Your task to perform on an android device: choose inbox layout in the gmail app Image 0: 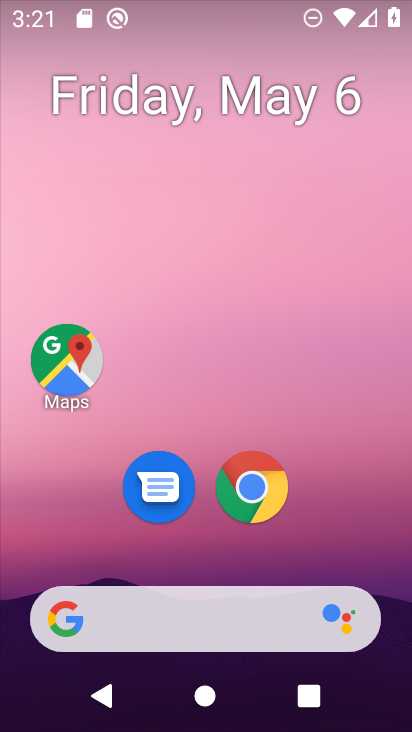
Step 0: drag from (350, 554) to (371, 58)
Your task to perform on an android device: choose inbox layout in the gmail app Image 1: 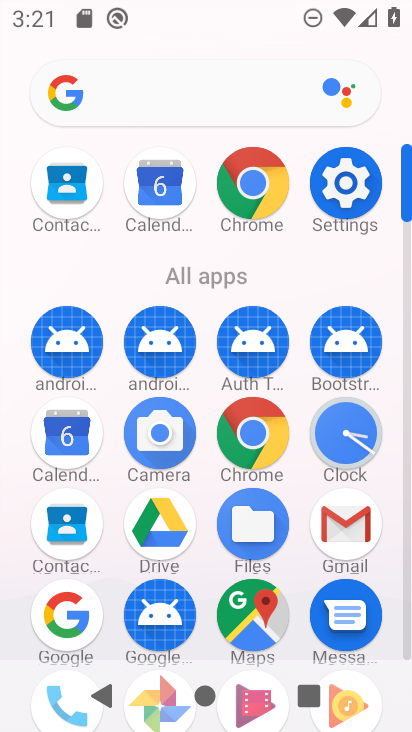
Step 1: click (332, 548)
Your task to perform on an android device: choose inbox layout in the gmail app Image 2: 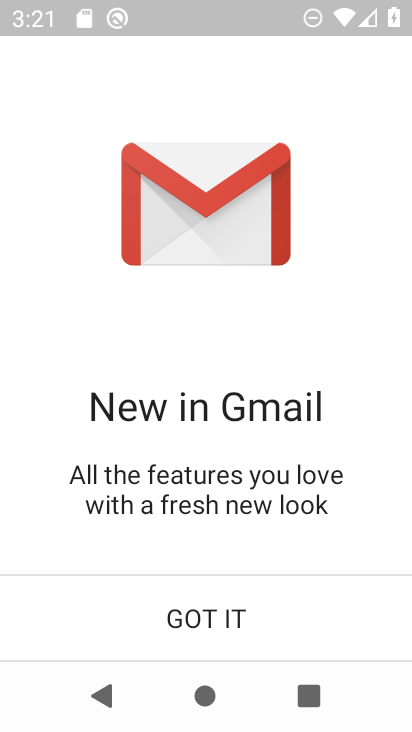
Step 2: click (177, 596)
Your task to perform on an android device: choose inbox layout in the gmail app Image 3: 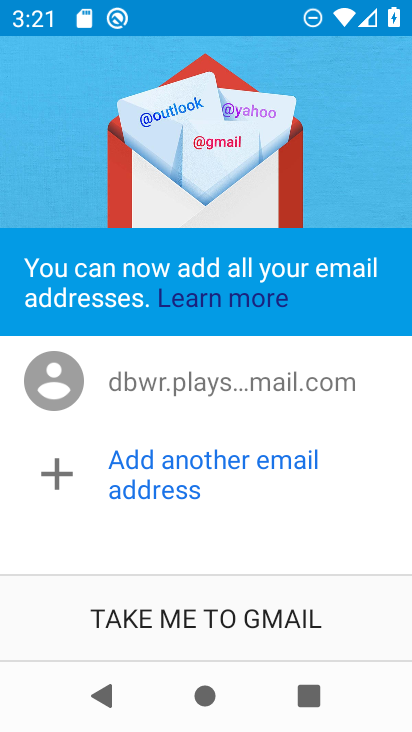
Step 3: click (226, 627)
Your task to perform on an android device: choose inbox layout in the gmail app Image 4: 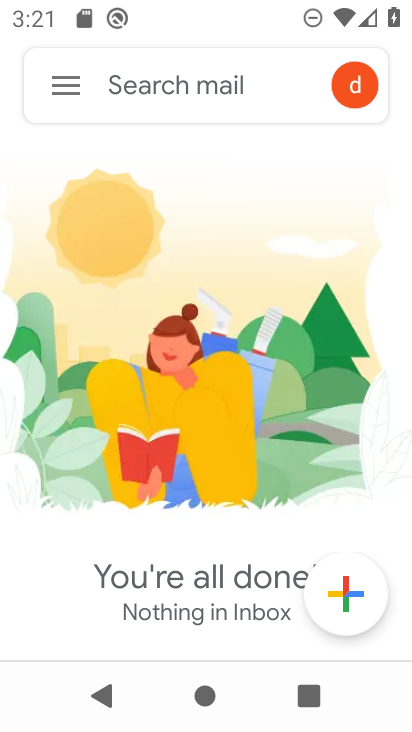
Step 4: click (66, 83)
Your task to perform on an android device: choose inbox layout in the gmail app Image 5: 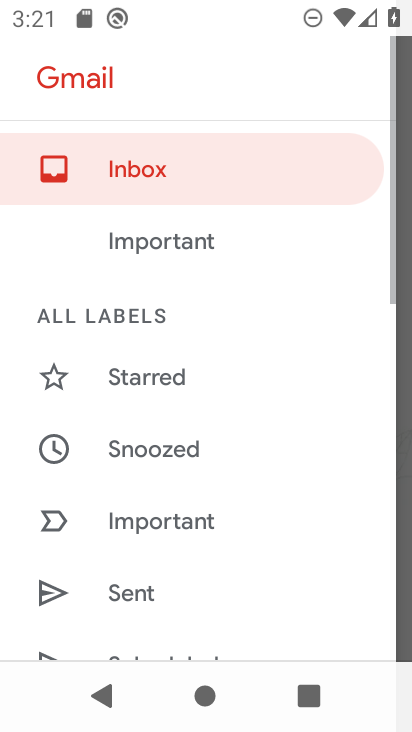
Step 5: drag from (212, 590) to (217, 460)
Your task to perform on an android device: choose inbox layout in the gmail app Image 6: 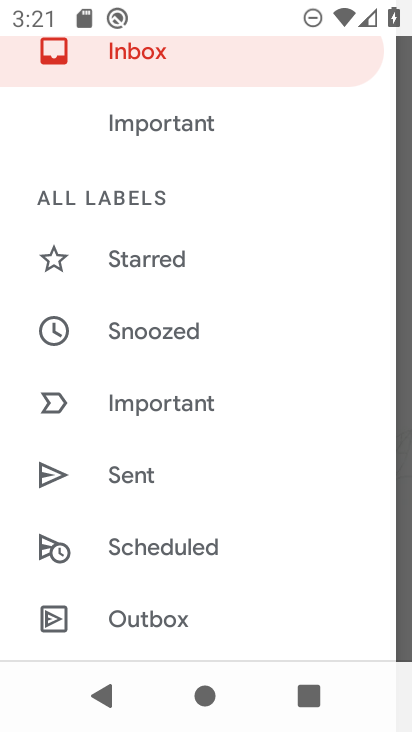
Step 6: drag from (201, 581) to (213, 399)
Your task to perform on an android device: choose inbox layout in the gmail app Image 7: 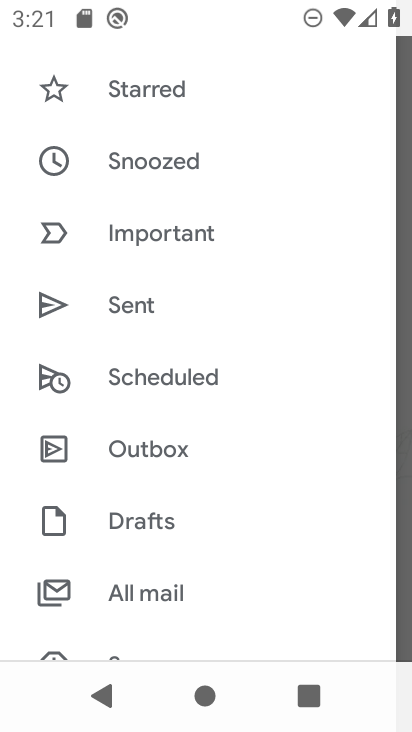
Step 7: drag from (214, 554) to (224, 397)
Your task to perform on an android device: choose inbox layout in the gmail app Image 8: 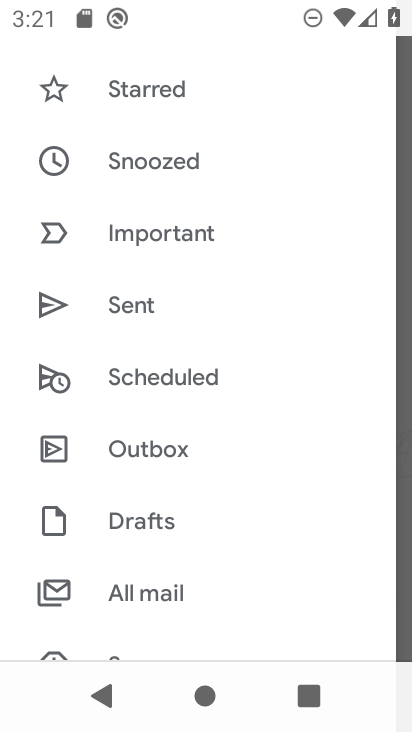
Step 8: drag from (206, 573) to (271, 421)
Your task to perform on an android device: choose inbox layout in the gmail app Image 9: 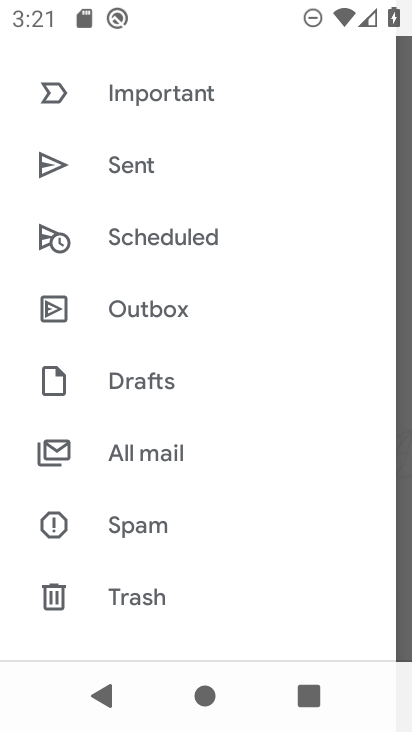
Step 9: drag from (190, 605) to (243, 354)
Your task to perform on an android device: choose inbox layout in the gmail app Image 10: 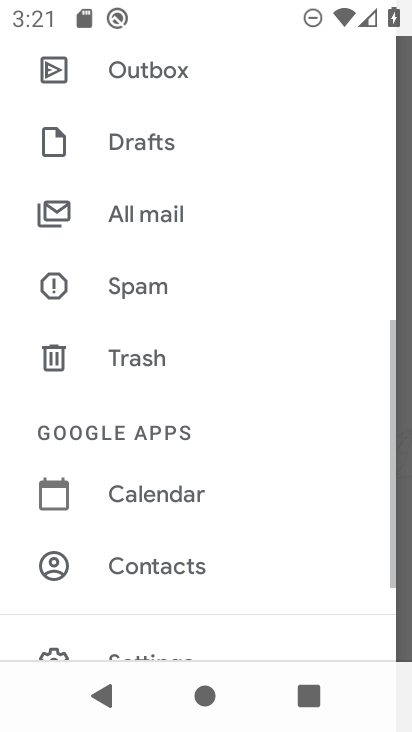
Step 10: drag from (238, 579) to (270, 352)
Your task to perform on an android device: choose inbox layout in the gmail app Image 11: 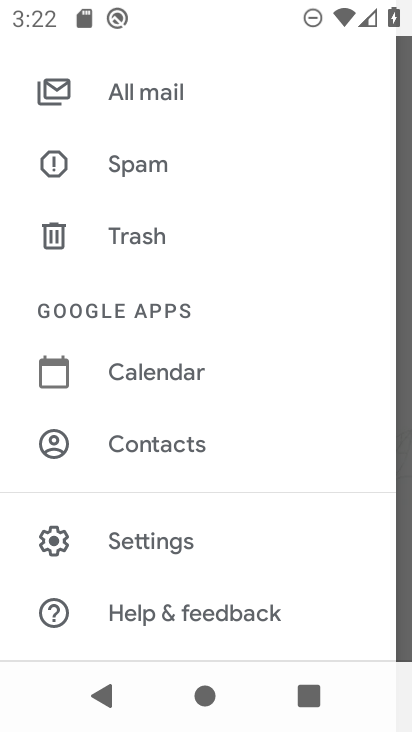
Step 11: click (209, 542)
Your task to perform on an android device: choose inbox layout in the gmail app Image 12: 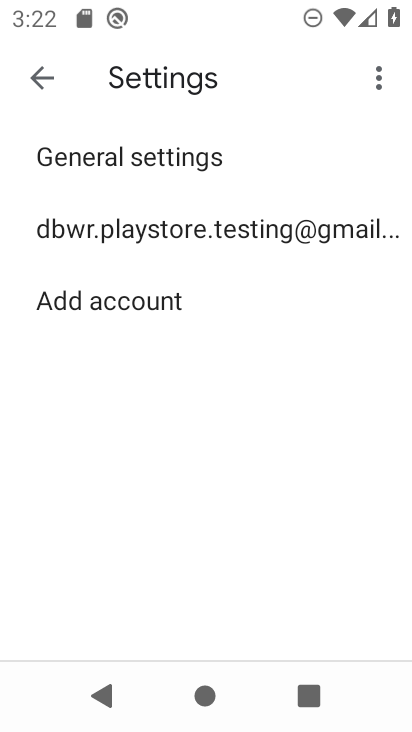
Step 12: click (183, 230)
Your task to perform on an android device: choose inbox layout in the gmail app Image 13: 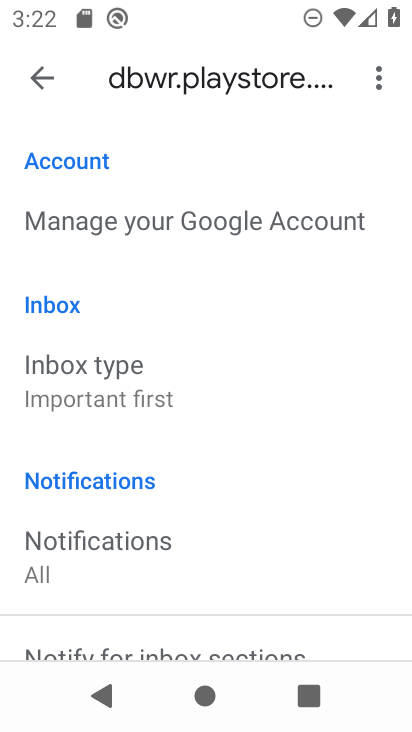
Step 13: drag from (146, 580) to (253, 228)
Your task to perform on an android device: choose inbox layout in the gmail app Image 14: 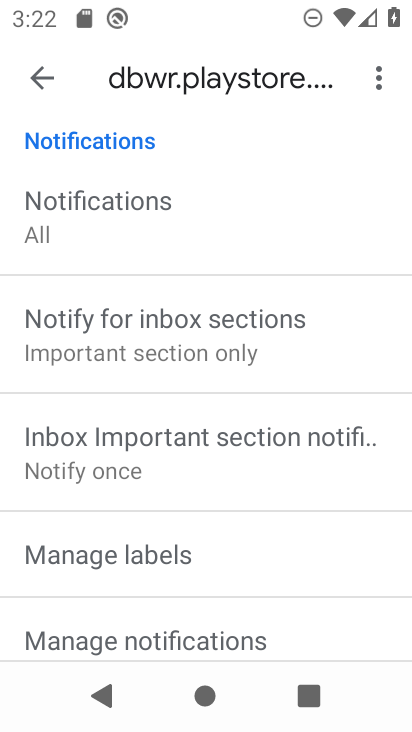
Step 14: drag from (201, 164) to (258, 560)
Your task to perform on an android device: choose inbox layout in the gmail app Image 15: 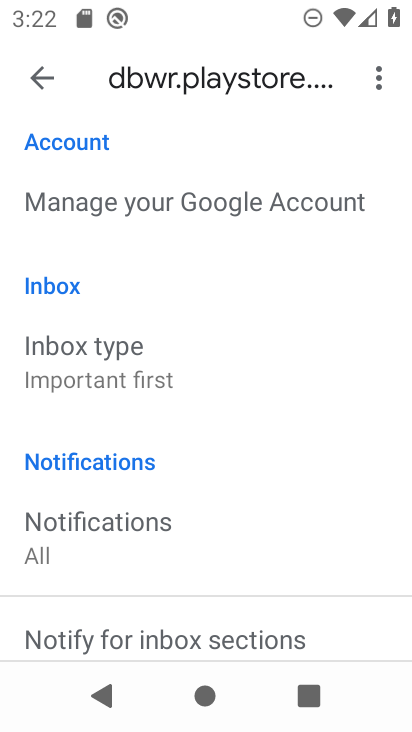
Step 15: click (128, 366)
Your task to perform on an android device: choose inbox layout in the gmail app Image 16: 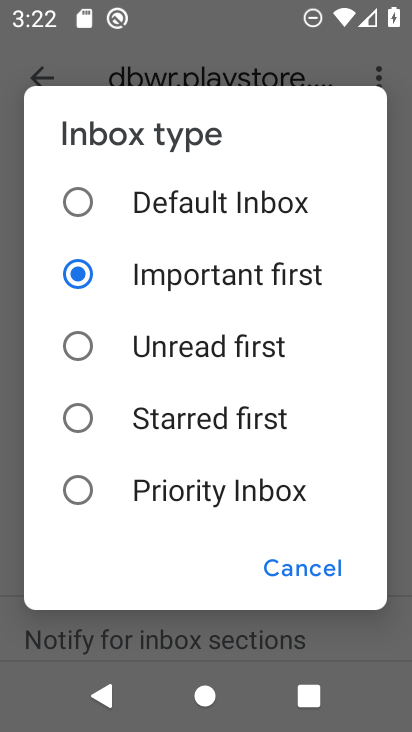
Step 16: click (185, 213)
Your task to perform on an android device: choose inbox layout in the gmail app Image 17: 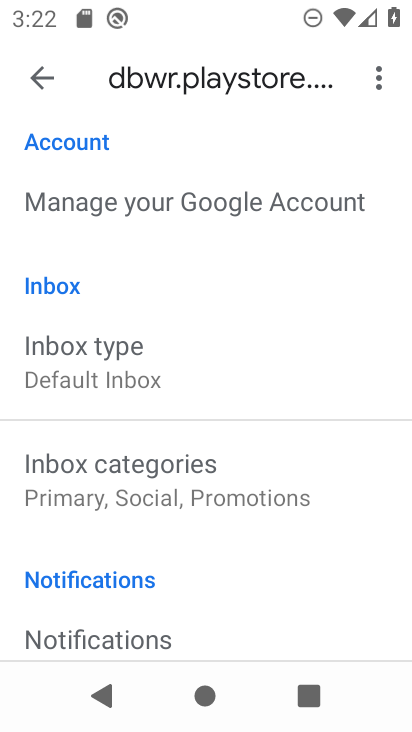
Step 17: task complete